Your task to perform on an android device: Toggle the flashlight Image 0: 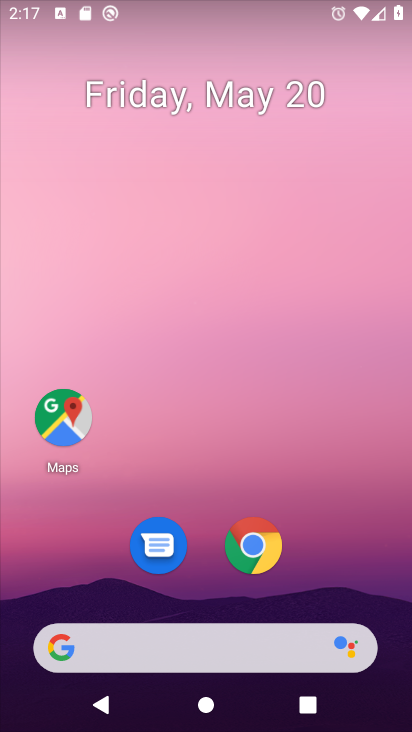
Step 0: drag from (278, 554) to (306, 96)
Your task to perform on an android device: Toggle the flashlight Image 1: 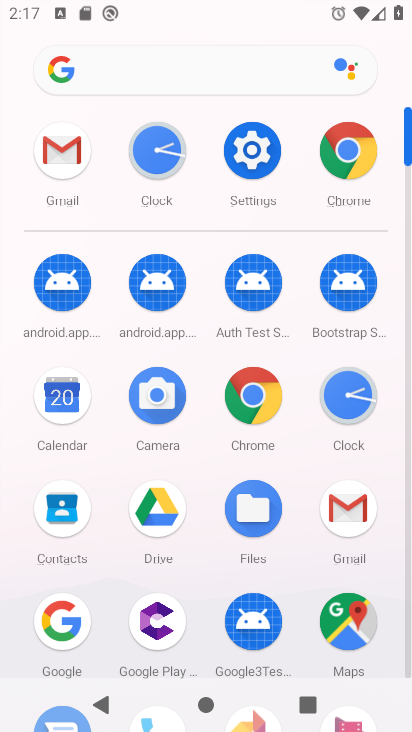
Step 1: click (229, 174)
Your task to perform on an android device: Toggle the flashlight Image 2: 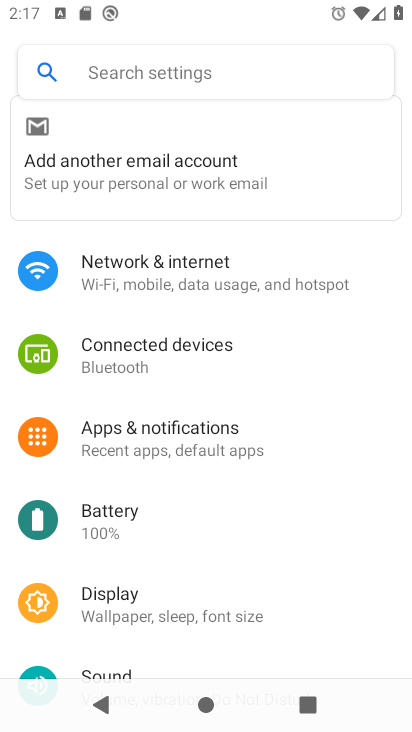
Step 2: task complete